Your task to perform on an android device: find which apps use the phone's location Image 0: 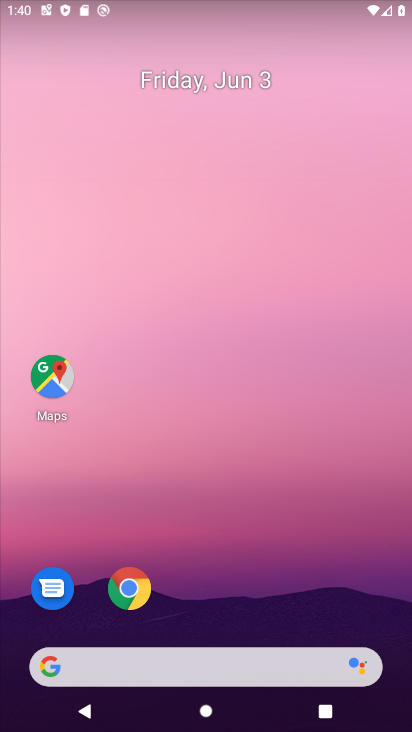
Step 0: drag from (81, 586) to (335, 171)
Your task to perform on an android device: find which apps use the phone's location Image 1: 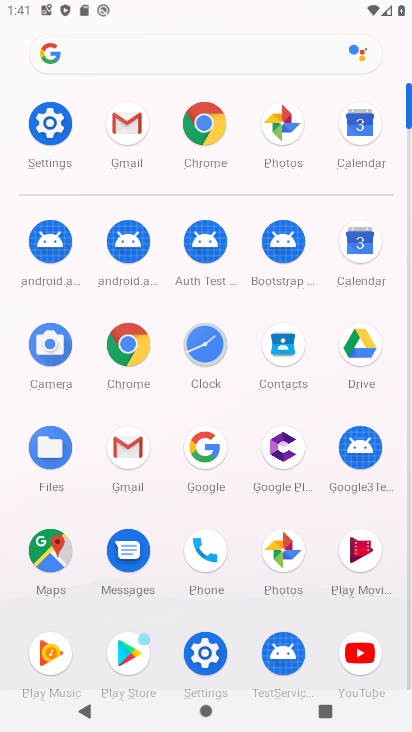
Step 1: click (52, 135)
Your task to perform on an android device: find which apps use the phone's location Image 2: 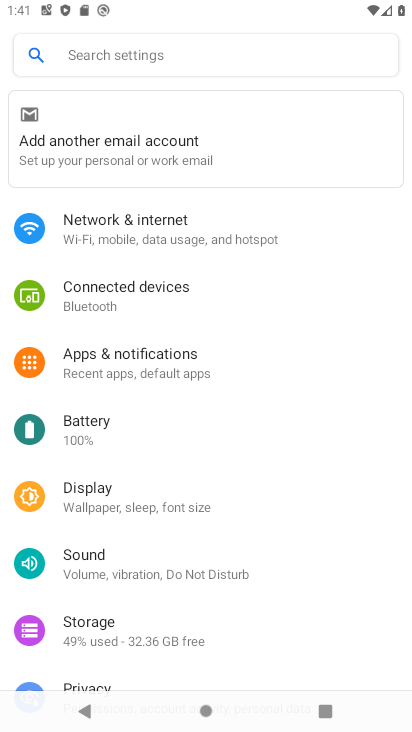
Step 2: drag from (13, 637) to (307, 108)
Your task to perform on an android device: find which apps use the phone's location Image 3: 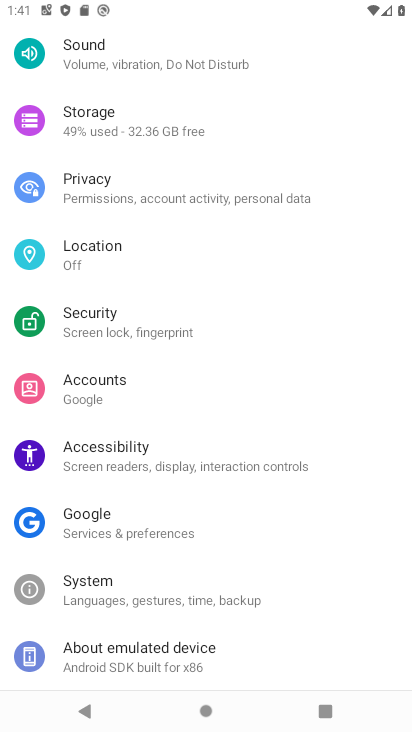
Step 3: click (87, 259)
Your task to perform on an android device: find which apps use the phone's location Image 4: 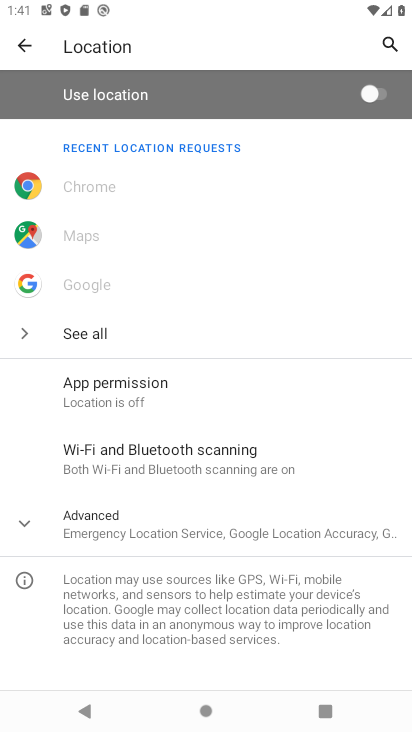
Step 4: click (121, 384)
Your task to perform on an android device: find which apps use the phone's location Image 5: 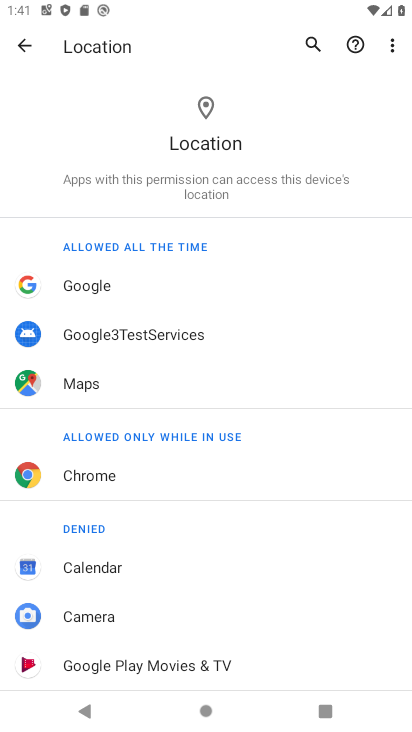
Step 5: task complete